Your task to perform on an android device: Open CNN.com Image 0: 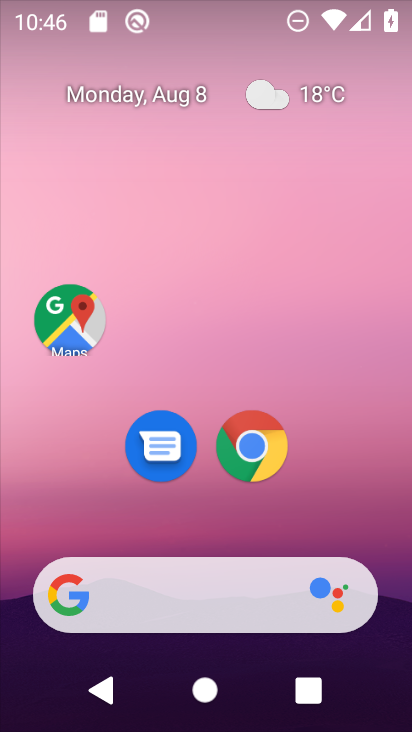
Step 0: click (255, 444)
Your task to perform on an android device: Open CNN.com Image 1: 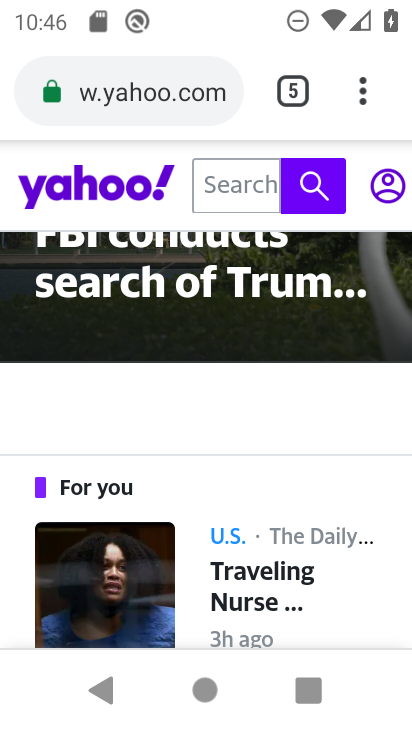
Step 1: click (234, 94)
Your task to perform on an android device: Open CNN.com Image 2: 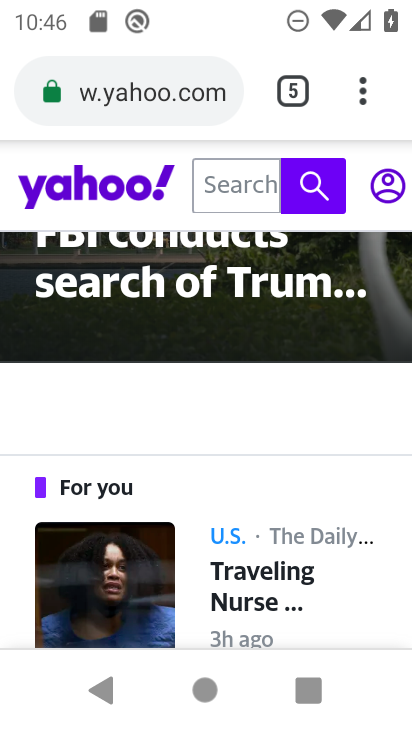
Step 2: click (219, 68)
Your task to perform on an android device: Open CNN.com Image 3: 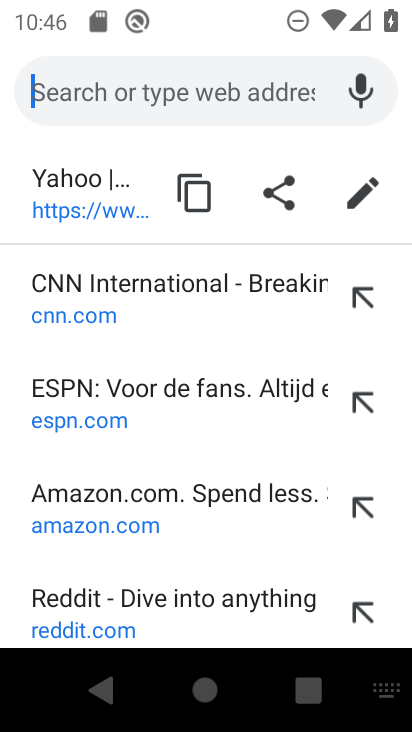
Step 3: type "cnn.com"
Your task to perform on an android device: Open CNN.com Image 4: 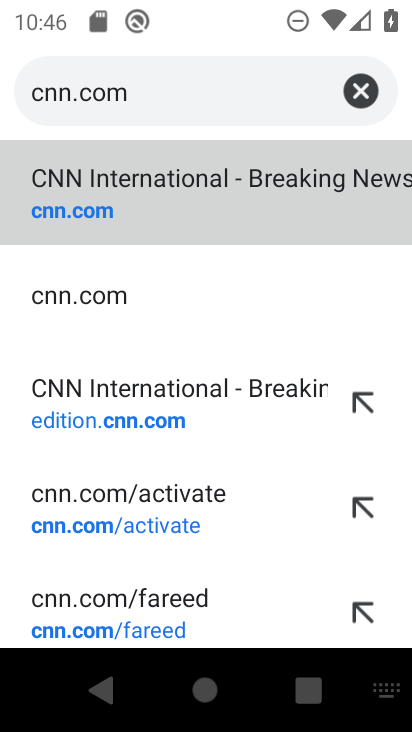
Step 4: click (100, 195)
Your task to perform on an android device: Open CNN.com Image 5: 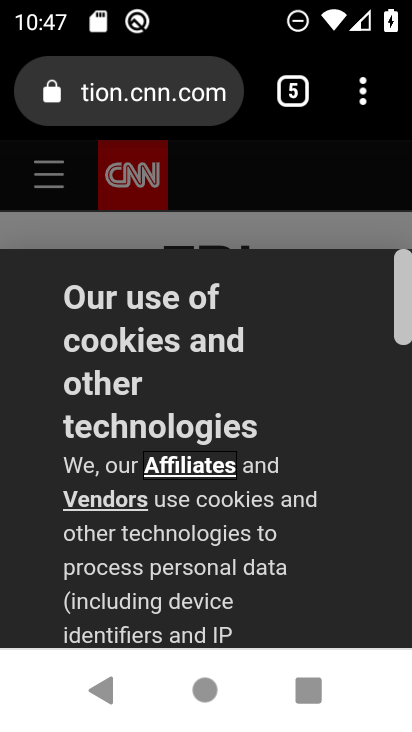
Step 5: drag from (242, 560) to (257, 249)
Your task to perform on an android device: Open CNN.com Image 6: 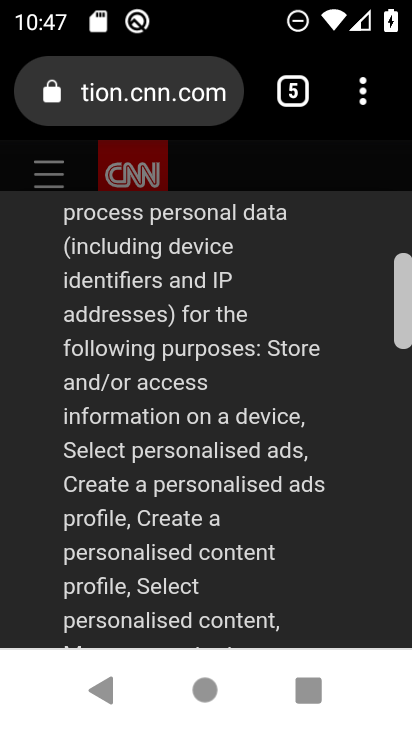
Step 6: drag from (283, 566) to (275, 255)
Your task to perform on an android device: Open CNN.com Image 7: 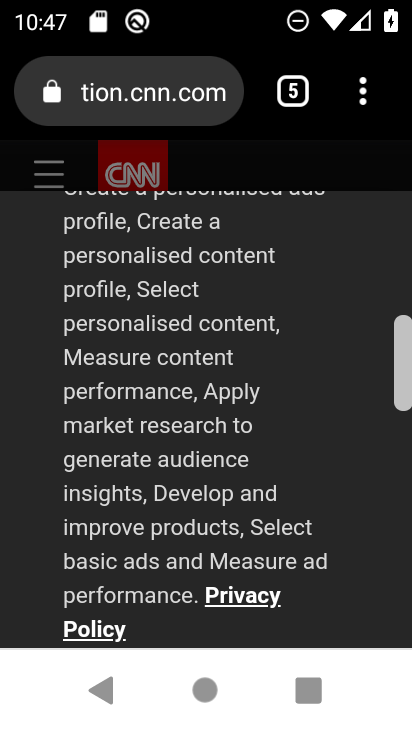
Step 7: drag from (305, 545) to (309, 141)
Your task to perform on an android device: Open CNN.com Image 8: 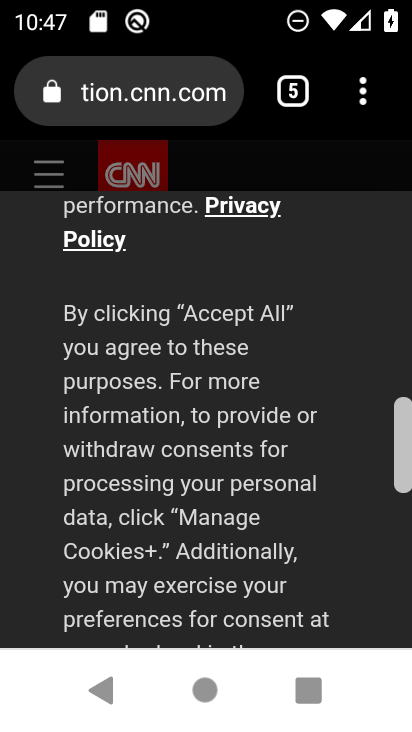
Step 8: drag from (319, 569) to (327, 263)
Your task to perform on an android device: Open CNN.com Image 9: 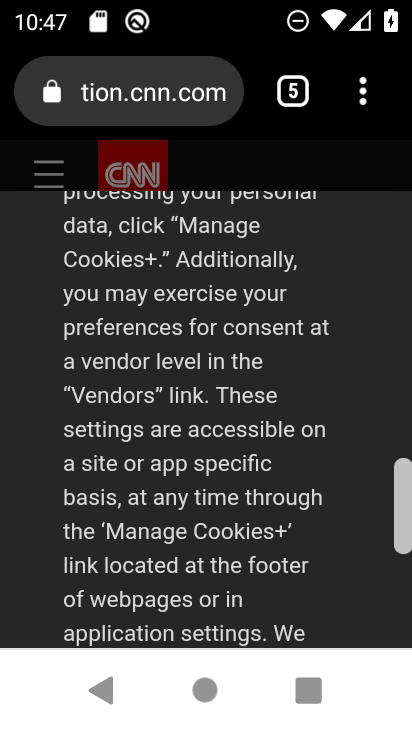
Step 9: drag from (309, 562) to (311, 128)
Your task to perform on an android device: Open CNN.com Image 10: 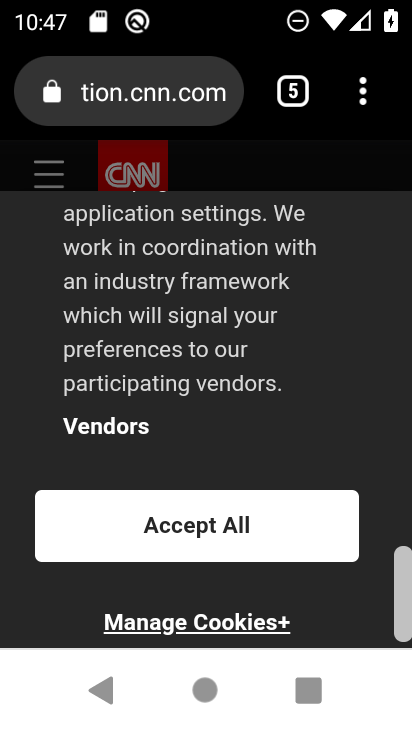
Step 10: click (196, 526)
Your task to perform on an android device: Open CNN.com Image 11: 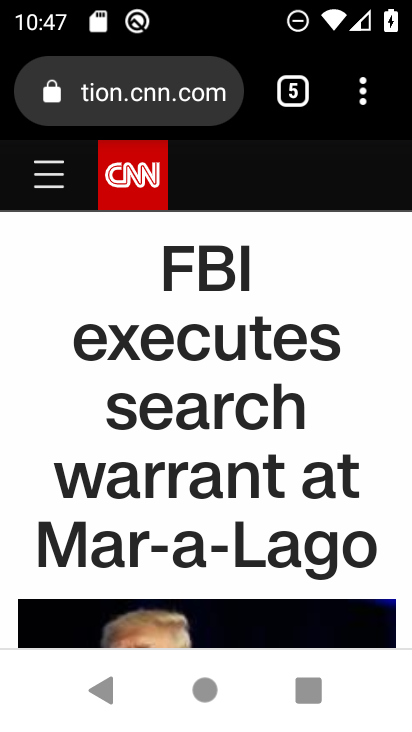
Step 11: task complete